Your task to perform on an android device: star an email in the gmail app Image 0: 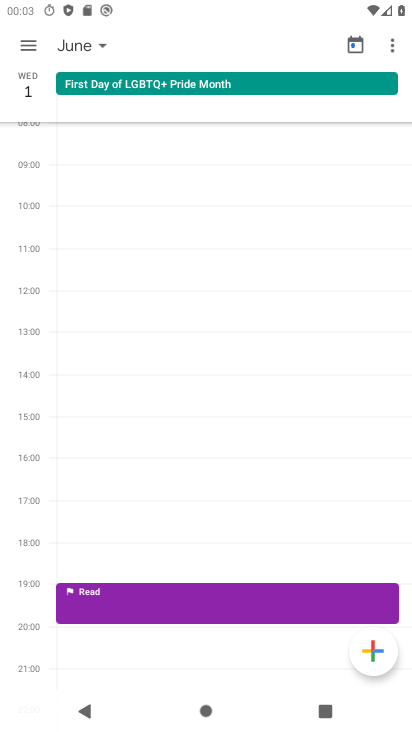
Step 0: press home button
Your task to perform on an android device: star an email in the gmail app Image 1: 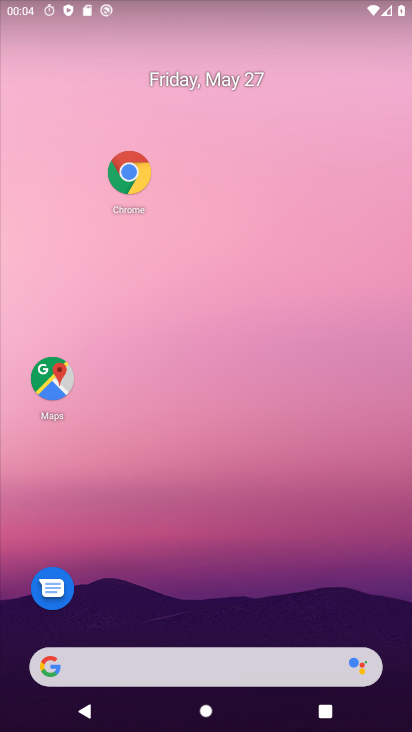
Step 1: drag from (174, 636) to (173, 206)
Your task to perform on an android device: star an email in the gmail app Image 2: 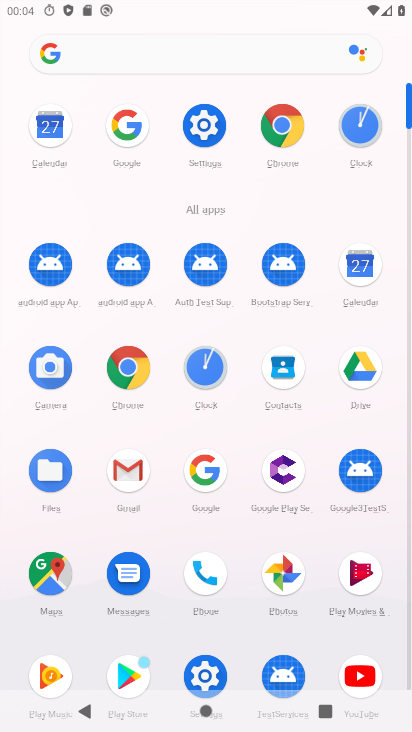
Step 2: click (137, 467)
Your task to perform on an android device: star an email in the gmail app Image 3: 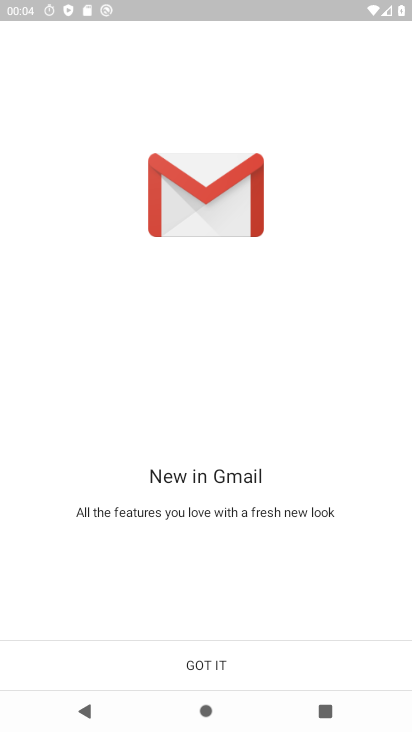
Step 3: click (208, 663)
Your task to perform on an android device: star an email in the gmail app Image 4: 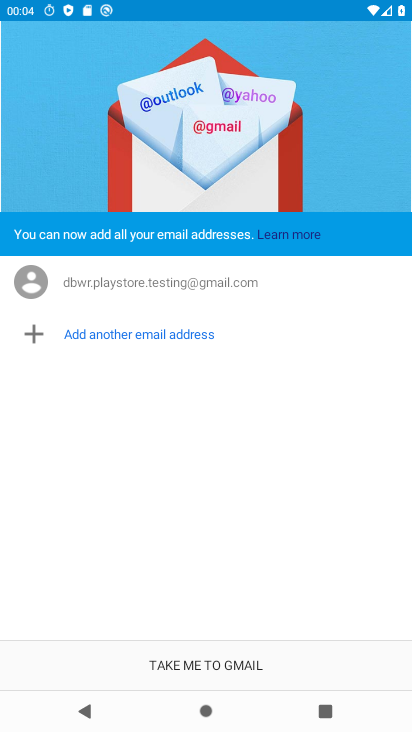
Step 4: click (215, 661)
Your task to perform on an android device: star an email in the gmail app Image 5: 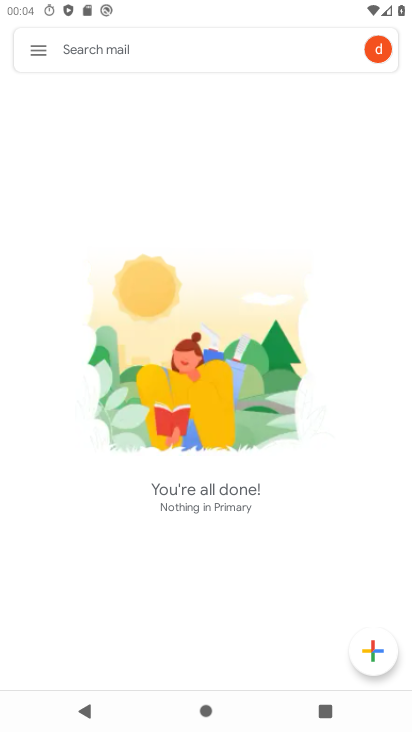
Step 5: click (48, 56)
Your task to perform on an android device: star an email in the gmail app Image 6: 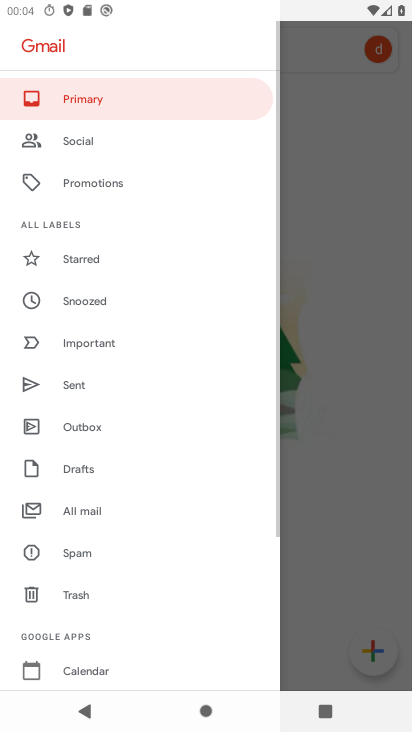
Step 6: click (72, 96)
Your task to perform on an android device: star an email in the gmail app Image 7: 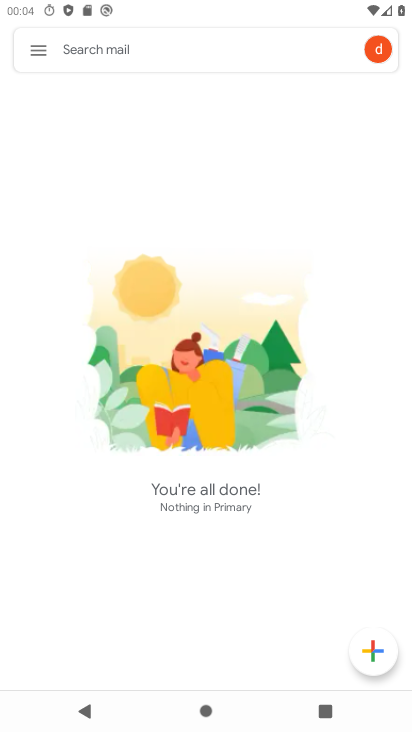
Step 7: task complete